Your task to perform on an android device: Go to settings Image 0: 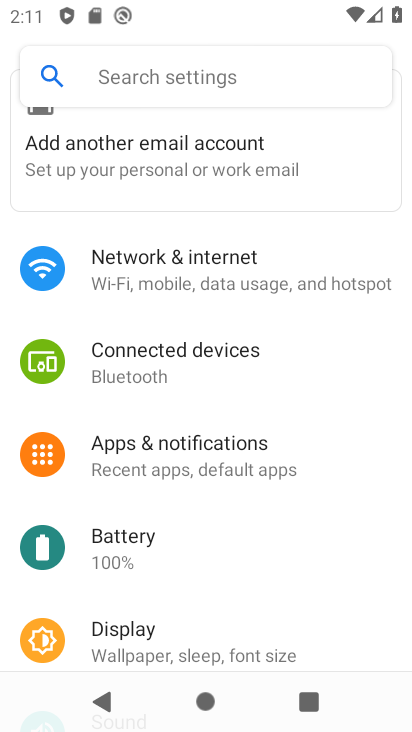
Step 0: drag from (263, 549) to (232, 240)
Your task to perform on an android device: Go to settings Image 1: 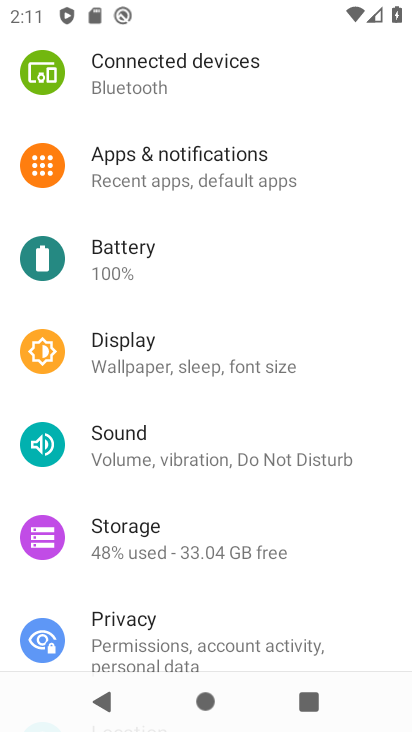
Step 1: task complete